Your task to perform on an android device: Open calendar and show me the third week of next month Image 0: 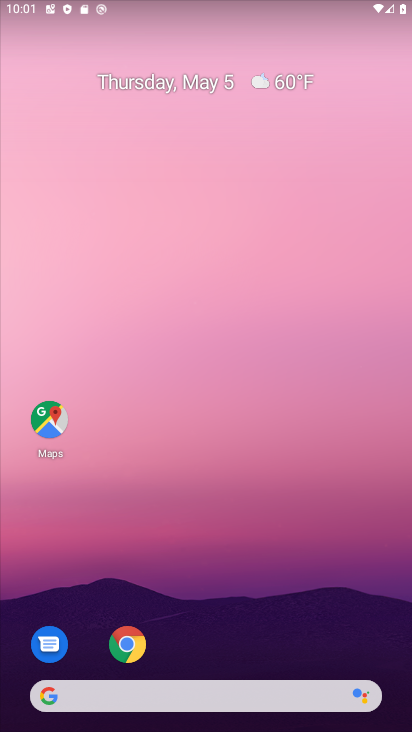
Step 0: drag from (277, 629) to (268, 119)
Your task to perform on an android device: Open calendar and show me the third week of next month Image 1: 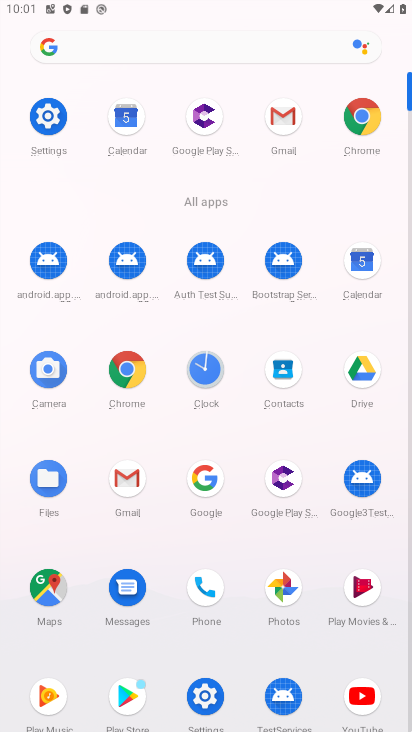
Step 1: click (351, 271)
Your task to perform on an android device: Open calendar and show me the third week of next month Image 2: 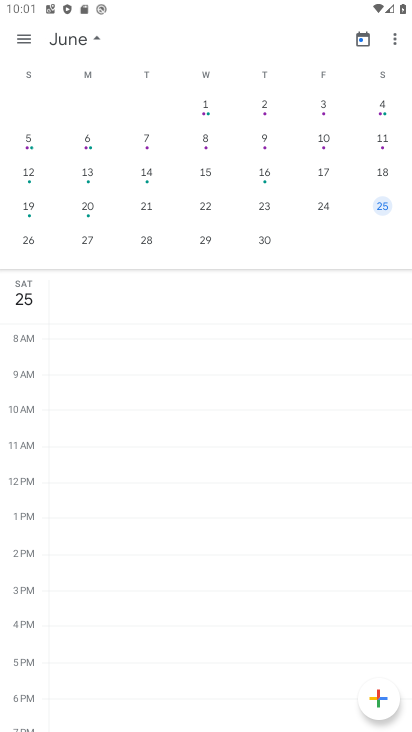
Step 2: click (22, 176)
Your task to perform on an android device: Open calendar and show me the third week of next month Image 3: 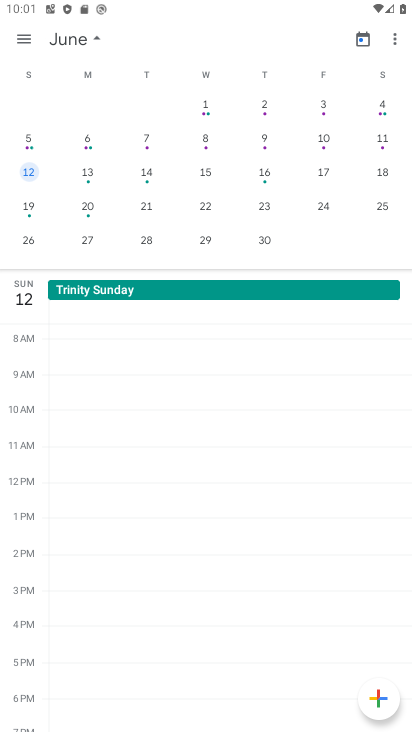
Step 3: click (87, 174)
Your task to perform on an android device: Open calendar and show me the third week of next month Image 4: 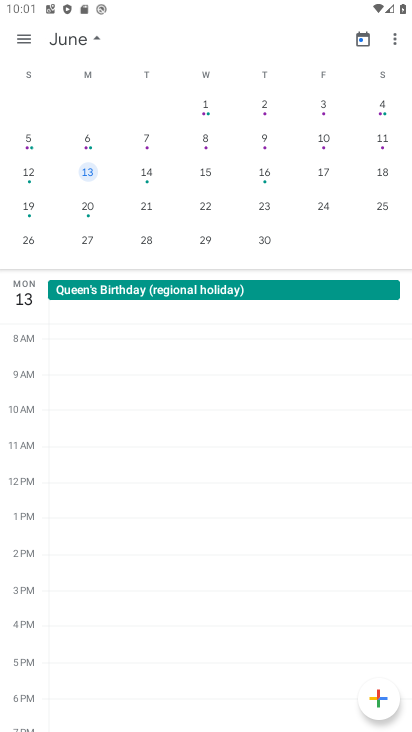
Step 4: click (151, 176)
Your task to perform on an android device: Open calendar and show me the third week of next month Image 5: 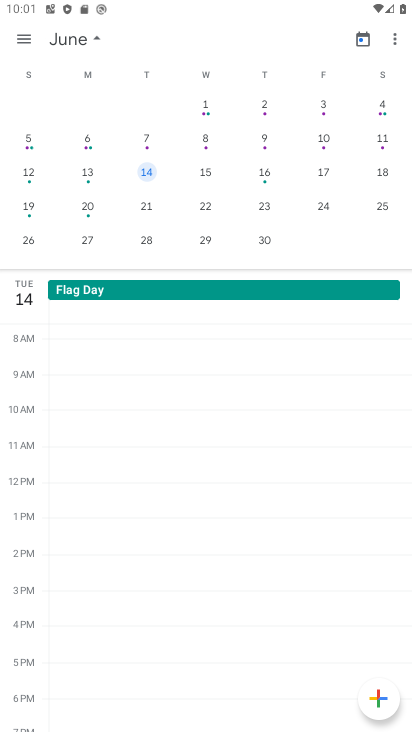
Step 5: click (208, 183)
Your task to perform on an android device: Open calendar and show me the third week of next month Image 6: 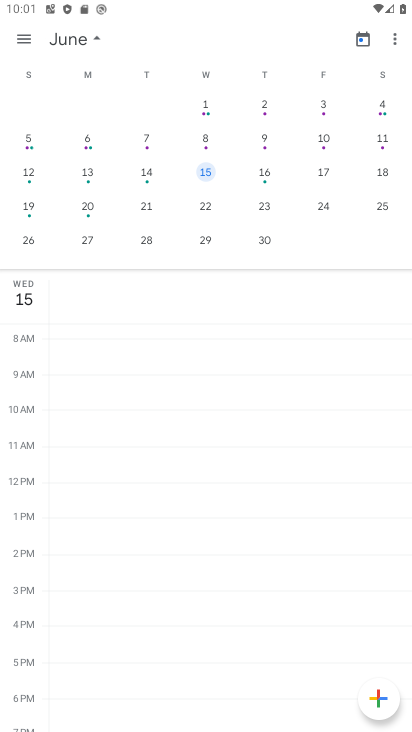
Step 6: click (260, 180)
Your task to perform on an android device: Open calendar and show me the third week of next month Image 7: 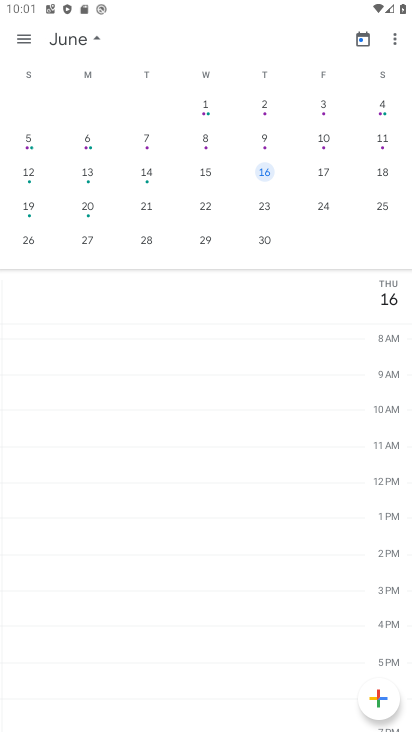
Step 7: click (326, 173)
Your task to perform on an android device: Open calendar and show me the third week of next month Image 8: 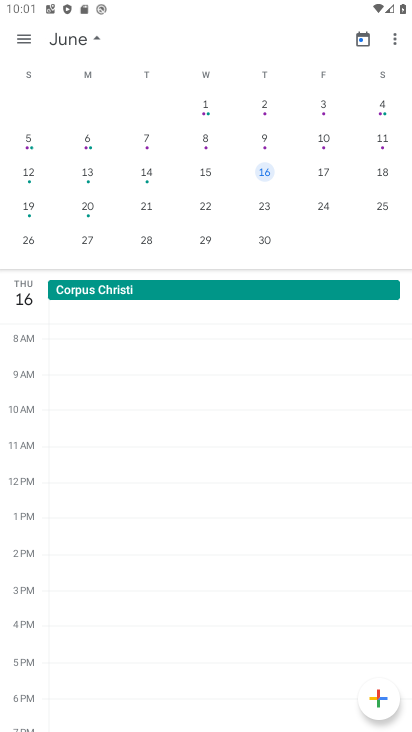
Step 8: click (377, 173)
Your task to perform on an android device: Open calendar and show me the third week of next month Image 9: 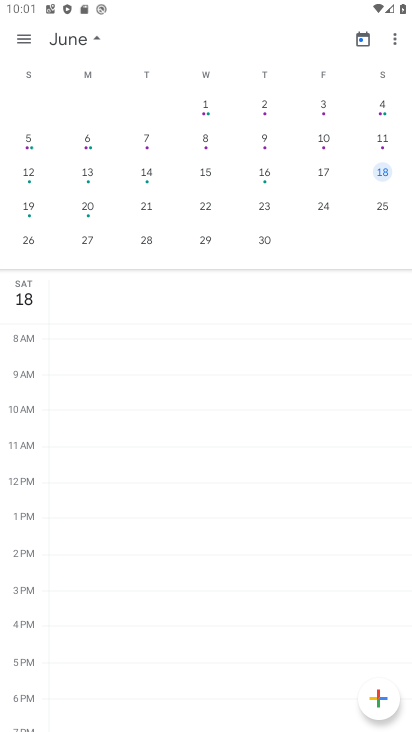
Step 9: task complete